Your task to perform on an android device: Check the news Image 0: 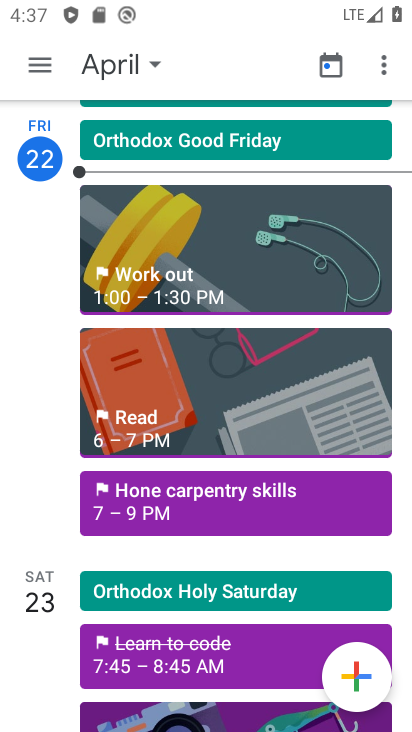
Step 0: press home button
Your task to perform on an android device: Check the news Image 1: 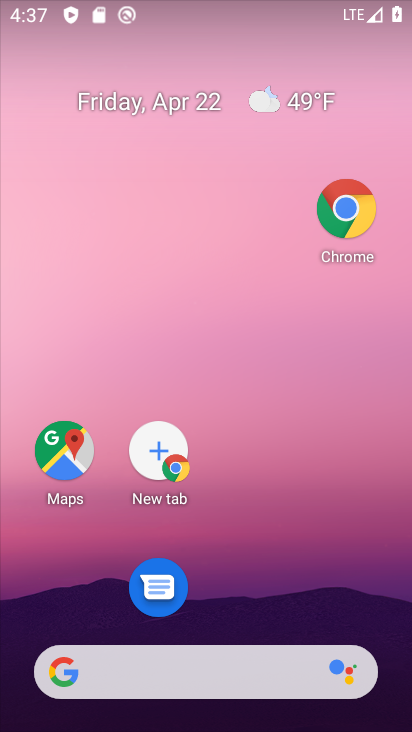
Step 1: click (210, 674)
Your task to perform on an android device: Check the news Image 2: 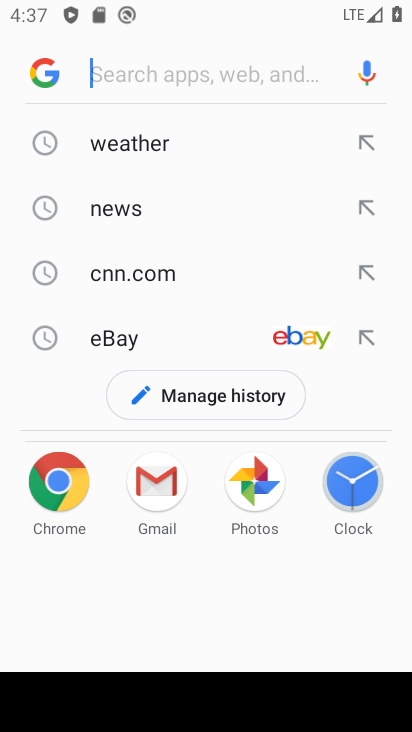
Step 2: click (48, 81)
Your task to perform on an android device: Check the news Image 3: 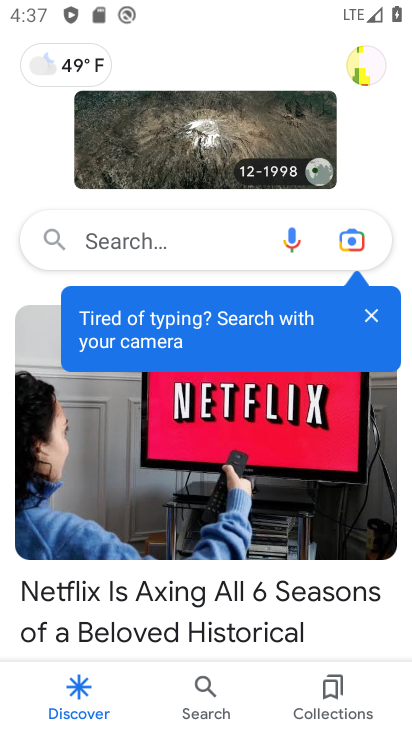
Step 3: task complete